Your task to perform on an android device: Open the calendar app, open the side menu, and click the "Day" option Image 0: 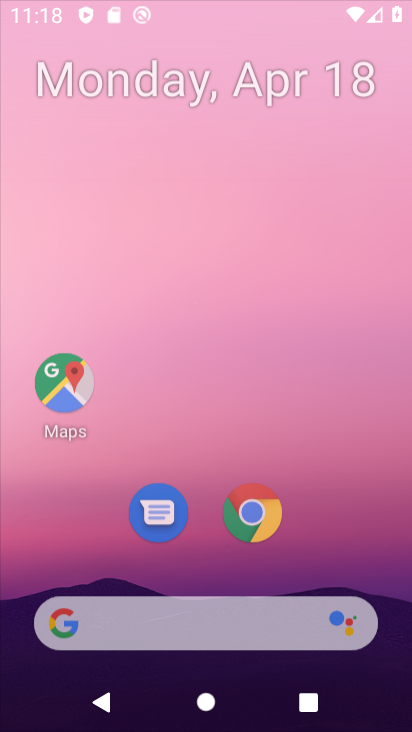
Step 0: press home button
Your task to perform on an android device: Open the calendar app, open the side menu, and click the "Day" option Image 1: 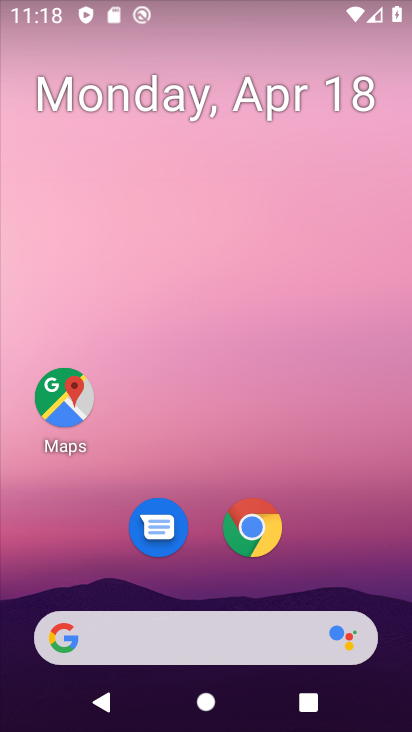
Step 1: drag from (215, 609) to (212, 155)
Your task to perform on an android device: Open the calendar app, open the side menu, and click the "Day" option Image 2: 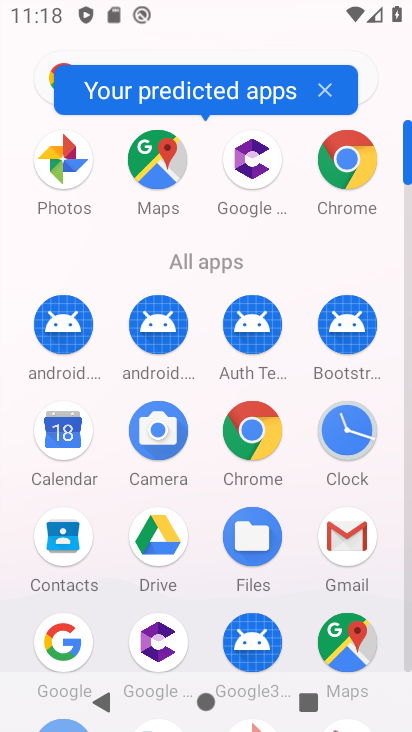
Step 2: click (67, 435)
Your task to perform on an android device: Open the calendar app, open the side menu, and click the "Day" option Image 3: 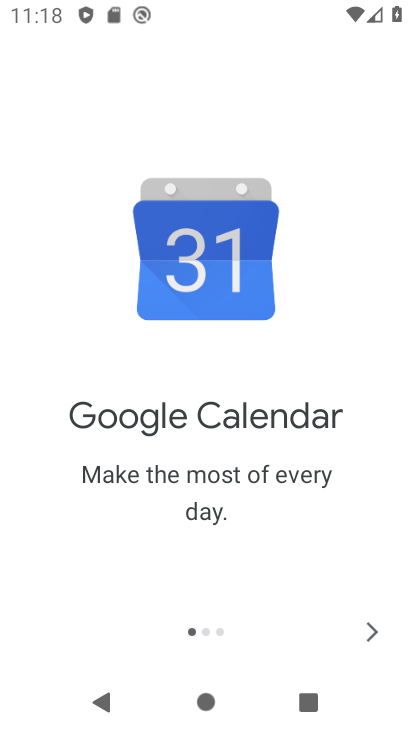
Step 3: click (377, 640)
Your task to perform on an android device: Open the calendar app, open the side menu, and click the "Day" option Image 4: 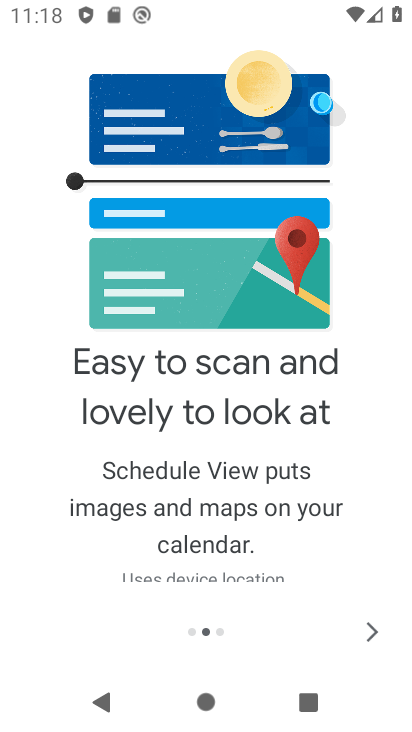
Step 4: click (377, 640)
Your task to perform on an android device: Open the calendar app, open the side menu, and click the "Day" option Image 5: 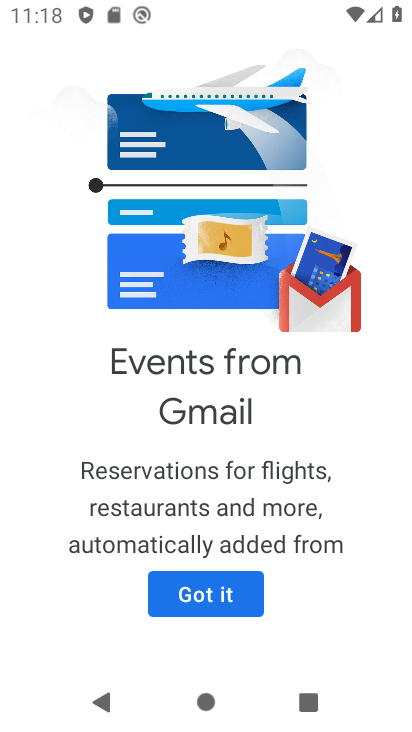
Step 5: click (193, 591)
Your task to perform on an android device: Open the calendar app, open the side menu, and click the "Day" option Image 6: 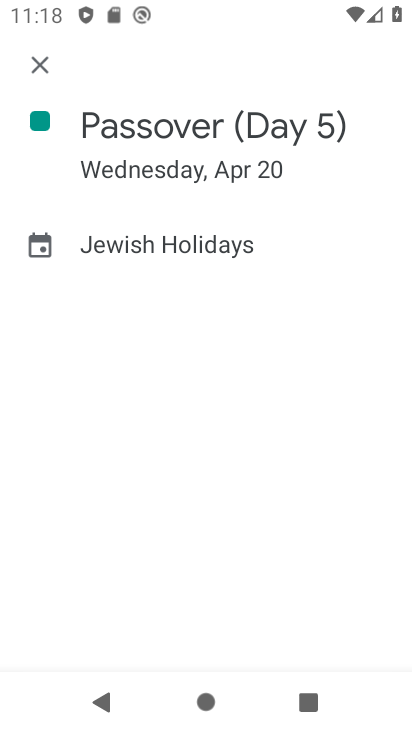
Step 6: click (30, 70)
Your task to perform on an android device: Open the calendar app, open the side menu, and click the "Day" option Image 7: 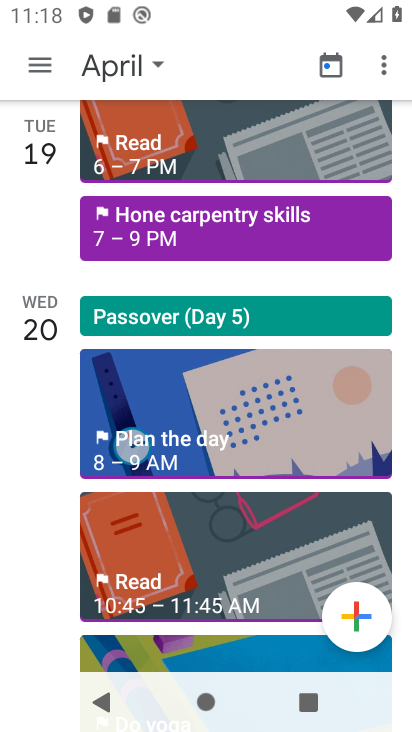
Step 7: click (30, 70)
Your task to perform on an android device: Open the calendar app, open the side menu, and click the "Day" option Image 8: 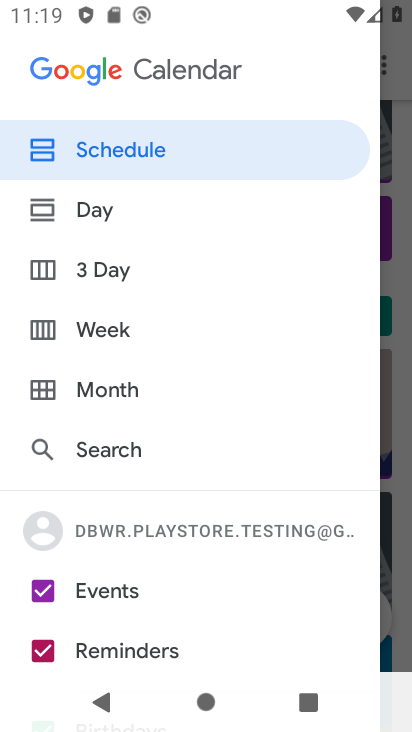
Step 8: click (113, 221)
Your task to perform on an android device: Open the calendar app, open the side menu, and click the "Day" option Image 9: 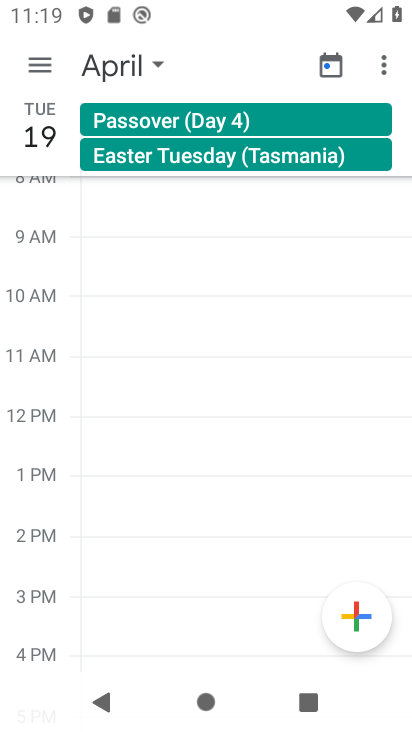
Step 9: click (123, 122)
Your task to perform on an android device: Open the calendar app, open the side menu, and click the "Day" option Image 10: 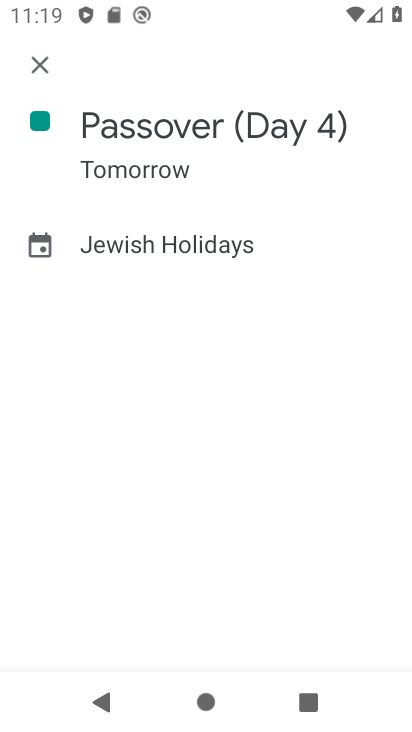
Step 10: task complete